Your task to perform on an android device: Add "razer kraken" to the cart on target Image 0: 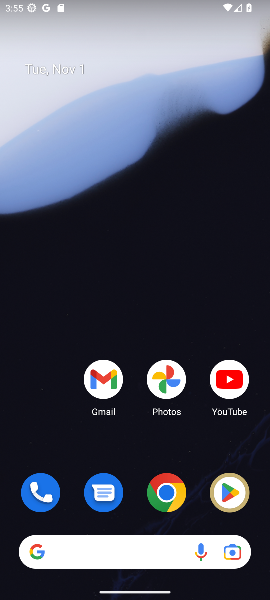
Step 0: click (168, 491)
Your task to perform on an android device: Add "razer kraken" to the cart on target Image 1: 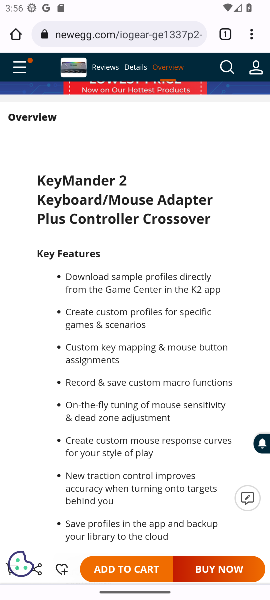
Step 1: click (87, 28)
Your task to perform on an android device: Add "razer kraken" to the cart on target Image 2: 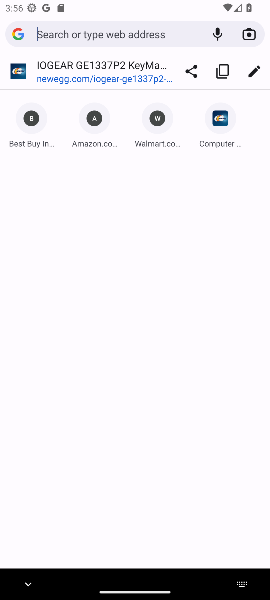
Step 2: type "target"
Your task to perform on an android device: Add "razer kraken" to the cart on target Image 3: 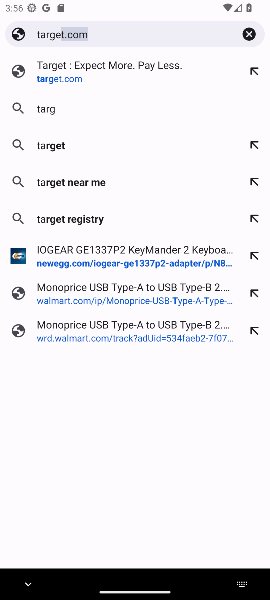
Step 3: type ""
Your task to perform on an android device: Add "razer kraken" to the cart on target Image 4: 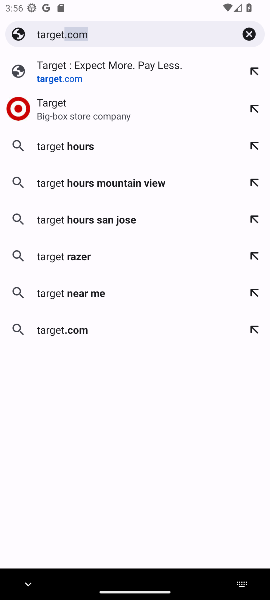
Step 4: click (121, 76)
Your task to perform on an android device: Add "razer kraken" to the cart on target Image 5: 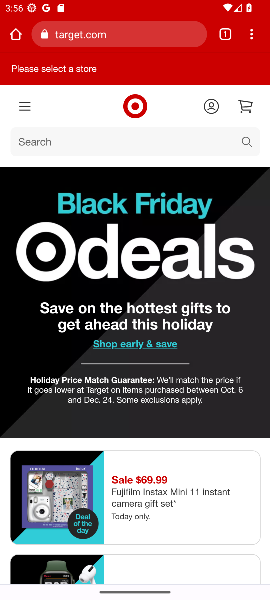
Step 5: click (194, 136)
Your task to perform on an android device: Add "razer kraken" to the cart on target Image 6: 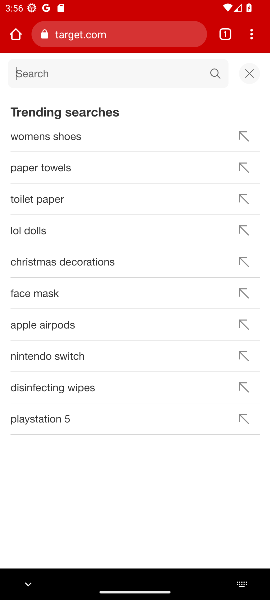
Step 6: type "razer kraken"
Your task to perform on an android device: Add "razer kraken" to the cart on target Image 7: 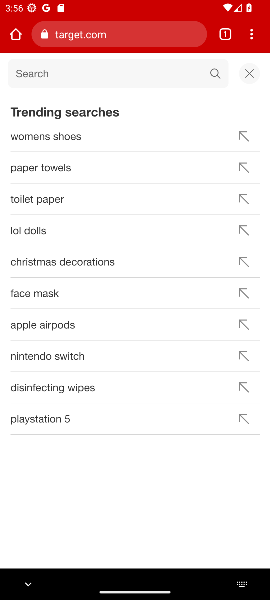
Step 7: type ""
Your task to perform on an android device: Add "razer kraken" to the cart on target Image 8: 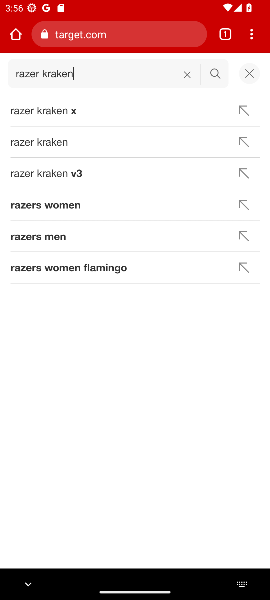
Step 8: click (36, 113)
Your task to perform on an android device: Add "razer kraken" to the cart on target Image 9: 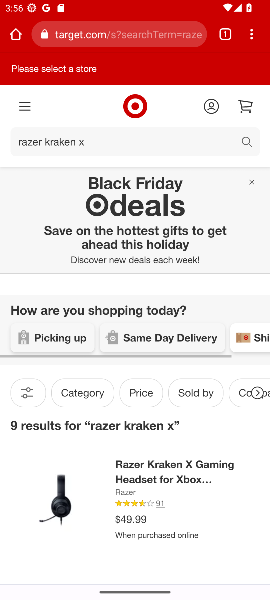
Step 9: click (173, 473)
Your task to perform on an android device: Add "razer kraken" to the cart on target Image 10: 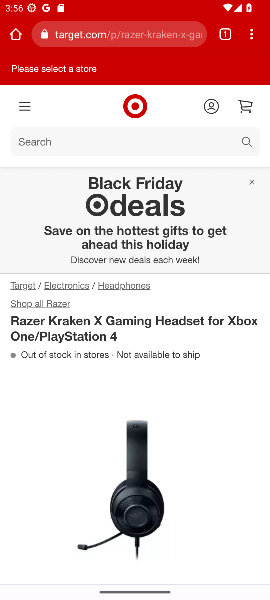
Step 10: drag from (169, 520) to (197, 167)
Your task to perform on an android device: Add "razer kraken" to the cart on target Image 11: 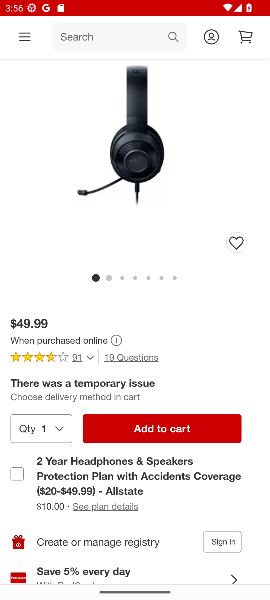
Step 11: click (161, 434)
Your task to perform on an android device: Add "razer kraken" to the cart on target Image 12: 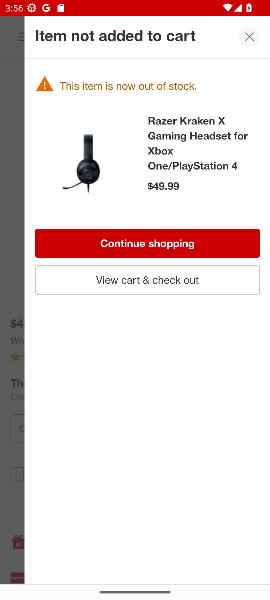
Step 12: click (196, 255)
Your task to perform on an android device: Add "razer kraken" to the cart on target Image 13: 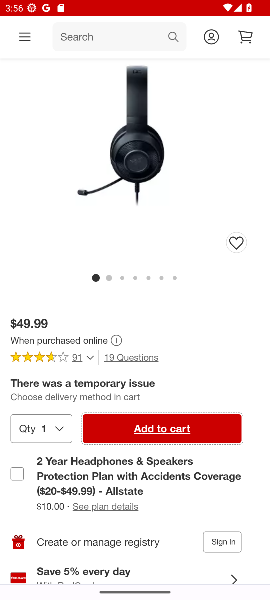
Step 13: drag from (188, 228) to (61, 212)
Your task to perform on an android device: Add "razer kraken" to the cart on target Image 14: 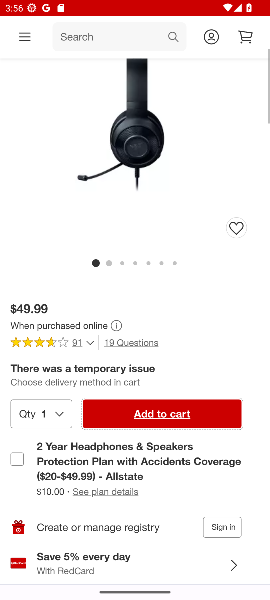
Step 14: drag from (146, 212) to (40, 206)
Your task to perform on an android device: Add "razer kraken" to the cart on target Image 15: 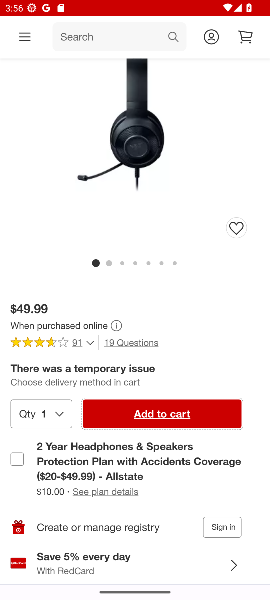
Step 15: drag from (152, 213) to (54, 210)
Your task to perform on an android device: Add "razer kraken" to the cart on target Image 16: 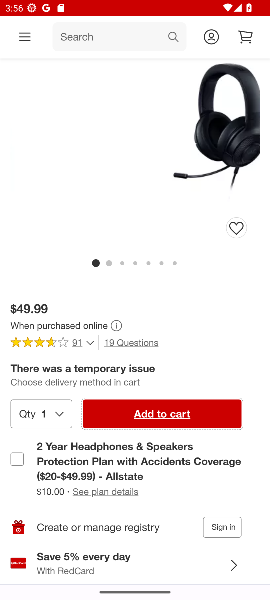
Step 16: click (97, 206)
Your task to perform on an android device: Add "razer kraken" to the cart on target Image 17: 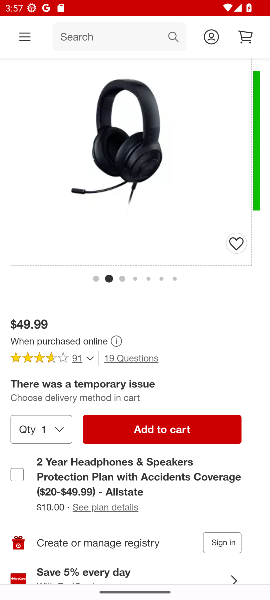
Step 17: click (79, 199)
Your task to perform on an android device: Add "razer kraken" to the cart on target Image 18: 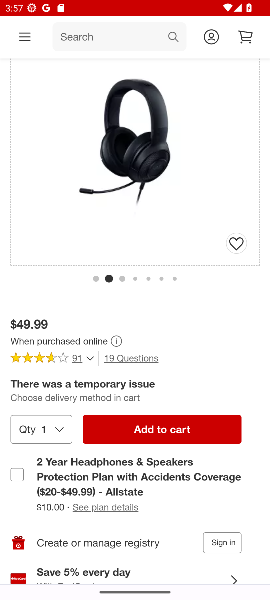
Step 18: click (58, 192)
Your task to perform on an android device: Add "razer kraken" to the cart on target Image 19: 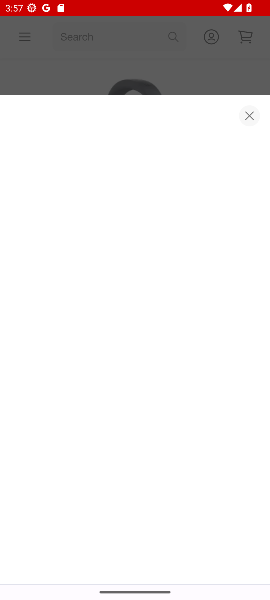
Step 19: drag from (128, 192) to (48, 188)
Your task to perform on an android device: Add "razer kraken" to the cart on target Image 20: 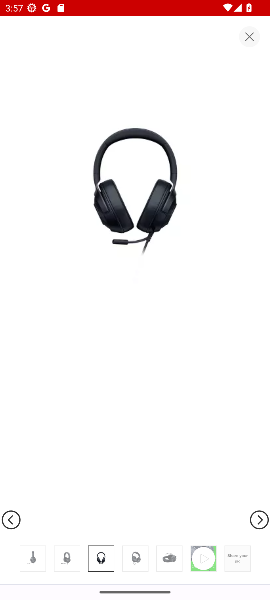
Step 20: click (237, 40)
Your task to perform on an android device: Add "razer kraken" to the cart on target Image 21: 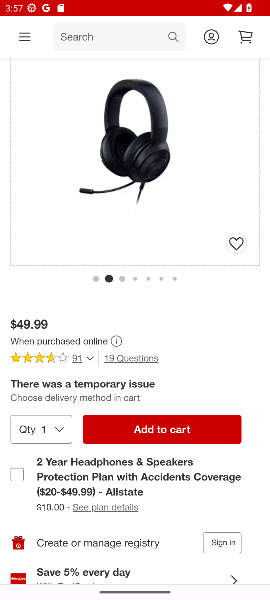
Step 21: drag from (209, 196) to (168, 194)
Your task to perform on an android device: Add "razer kraken" to the cart on target Image 22: 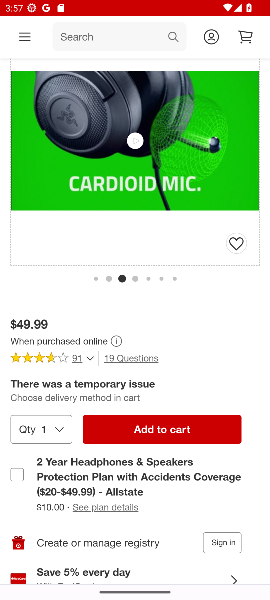
Step 22: drag from (191, 186) to (92, 188)
Your task to perform on an android device: Add "razer kraken" to the cart on target Image 23: 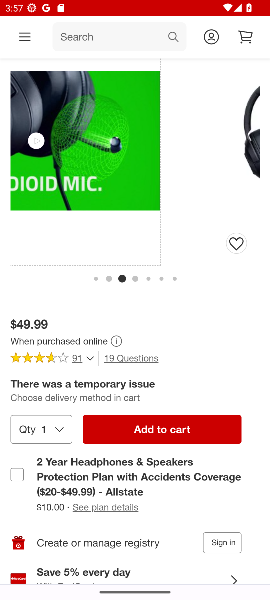
Step 23: drag from (182, 174) to (116, 174)
Your task to perform on an android device: Add "razer kraken" to the cart on target Image 24: 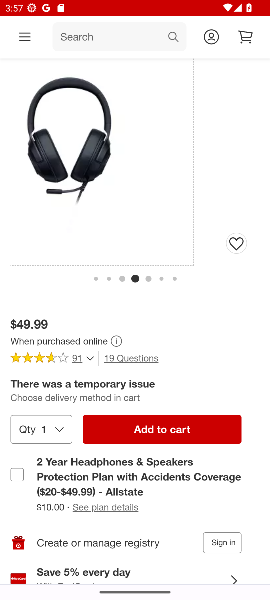
Step 24: drag from (193, 173) to (87, 173)
Your task to perform on an android device: Add "razer kraken" to the cart on target Image 25: 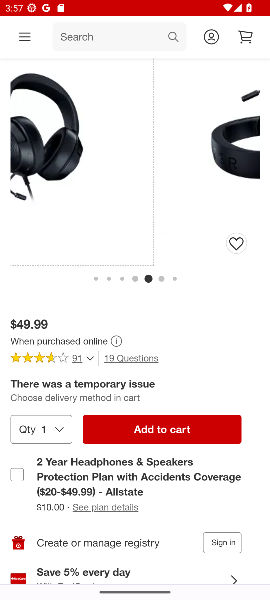
Step 25: drag from (163, 174) to (80, 169)
Your task to perform on an android device: Add "razer kraken" to the cart on target Image 26: 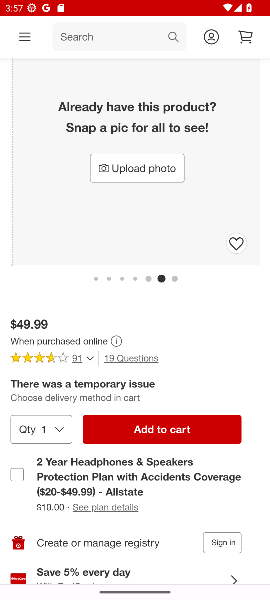
Step 26: drag from (96, 171) to (63, 177)
Your task to perform on an android device: Add "razer kraken" to the cart on target Image 27: 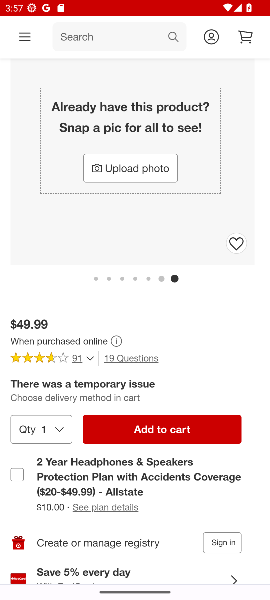
Step 27: drag from (124, 175) to (34, 173)
Your task to perform on an android device: Add "razer kraken" to the cart on target Image 28: 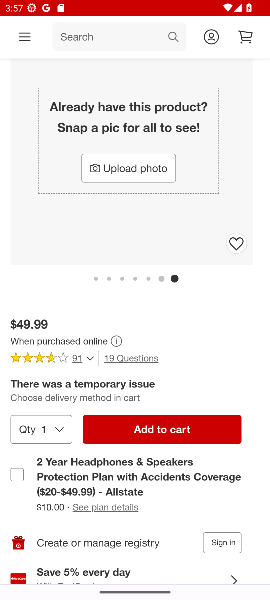
Step 28: drag from (91, 176) to (28, 175)
Your task to perform on an android device: Add "razer kraken" to the cart on target Image 29: 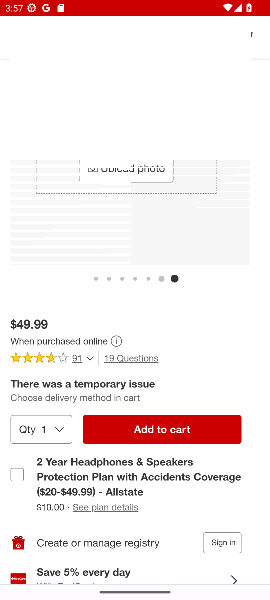
Step 29: drag from (128, 172) to (80, 166)
Your task to perform on an android device: Add "razer kraken" to the cart on target Image 30: 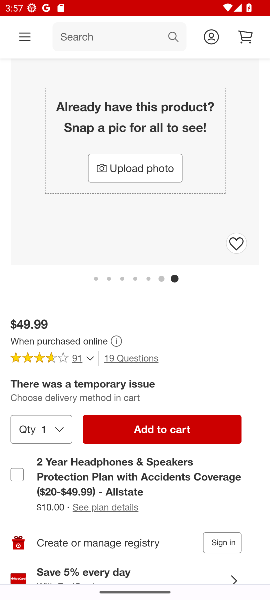
Step 30: drag from (188, 149) to (90, 151)
Your task to perform on an android device: Add "razer kraken" to the cart on target Image 31: 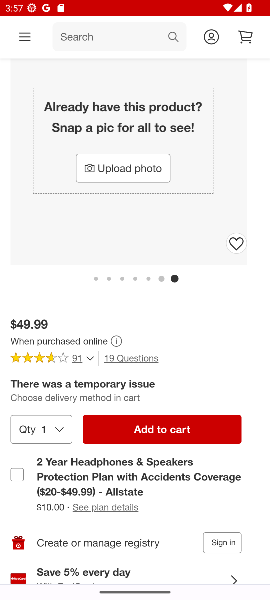
Step 31: drag from (74, 161) to (158, 161)
Your task to perform on an android device: Add "razer kraken" to the cart on target Image 32: 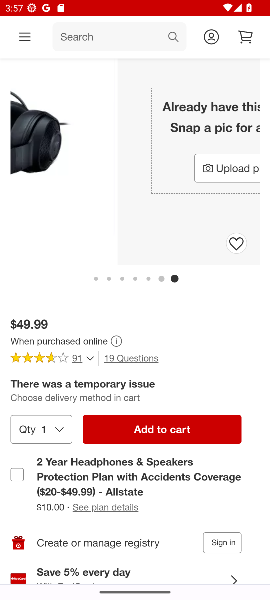
Step 32: drag from (128, 160) to (212, 159)
Your task to perform on an android device: Add "razer kraken" to the cart on target Image 33: 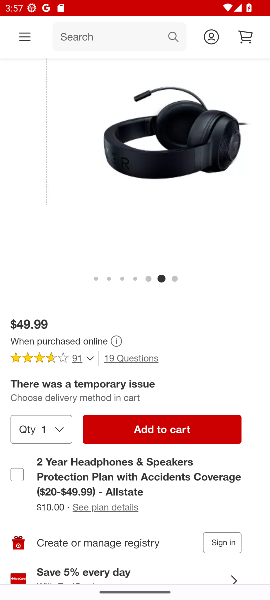
Step 33: drag from (110, 160) to (218, 160)
Your task to perform on an android device: Add "razer kraken" to the cart on target Image 34: 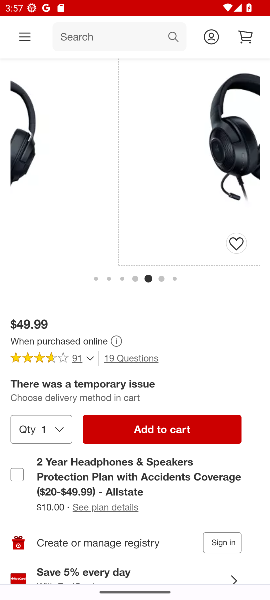
Step 34: drag from (80, 164) to (253, 166)
Your task to perform on an android device: Add "razer kraken" to the cart on target Image 35: 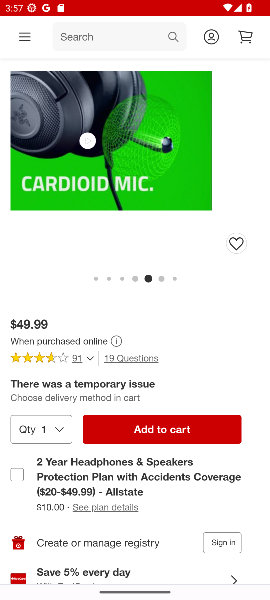
Step 35: drag from (160, 168) to (219, 168)
Your task to perform on an android device: Add "razer kraken" to the cart on target Image 36: 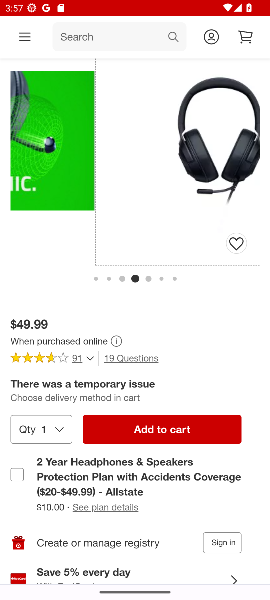
Step 36: drag from (138, 169) to (252, 166)
Your task to perform on an android device: Add "razer kraken" to the cart on target Image 37: 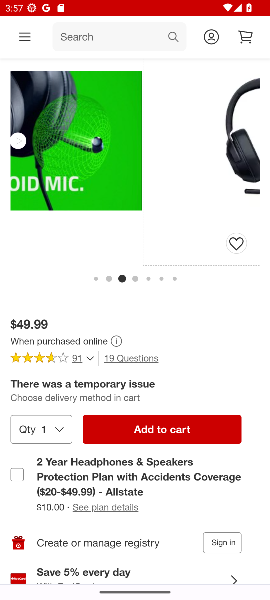
Step 37: drag from (121, 166) to (225, 162)
Your task to perform on an android device: Add "razer kraken" to the cart on target Image 38: 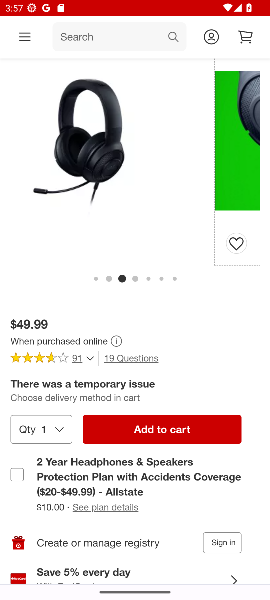
Step 38: drag from (104, 163) to (191, 164)
Your task to perform on an android device: Add "razer kraken" to the cart on target Image 39: 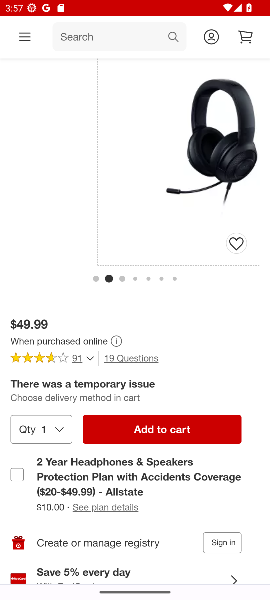
Step 39: drag from (83, 162) to (223, 153)
Your task to perform on an android device: Add "razer kraken" to the cart on target Image 40: 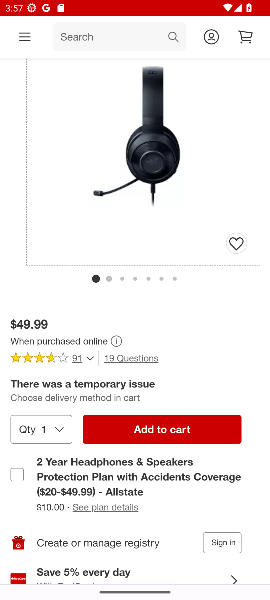
Step 40: drag from (113, 161) to (193, 163)
Your task to perform on an android device: Add "razer kraken" to the cart on target Image 41: 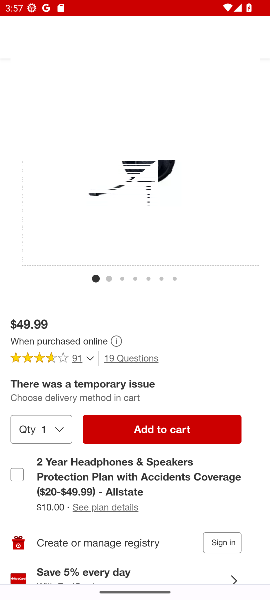
Step 41: drag from (77, 162) to (205, 158)
Your task to perform on an android device: Add "razer kraken" to the cart on target Image 42: 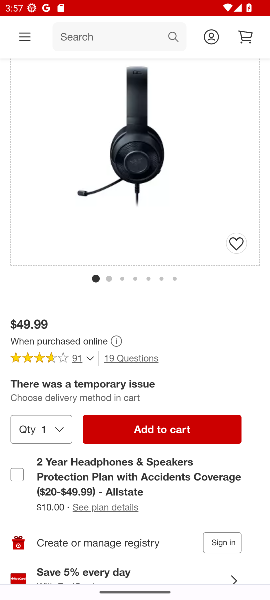
Step 42: click (183, 432)
Your task to perform on an android device: Add "razer kraken" to the cart on target Image 43: 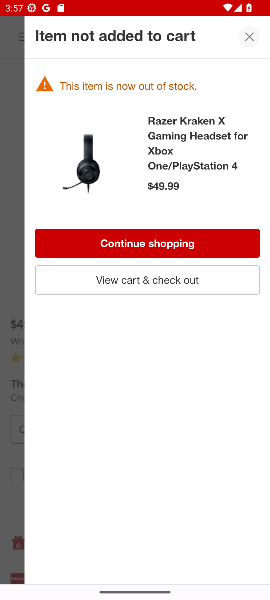
Step 43: click (155, 282)
Your task to perform on an android device: Add "razer kraken" to the cart on target Image 44: 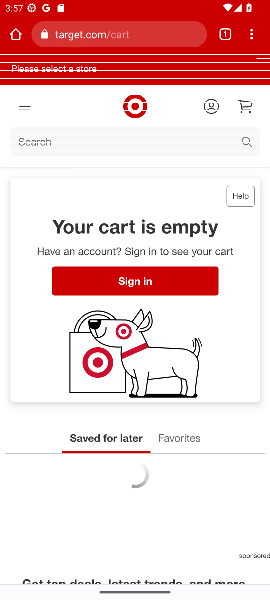
Step 44: drag from (158, 370) to (170, 242)
Your task to perform on an android device: Add "razer kraken" to the cart on target Image 45: 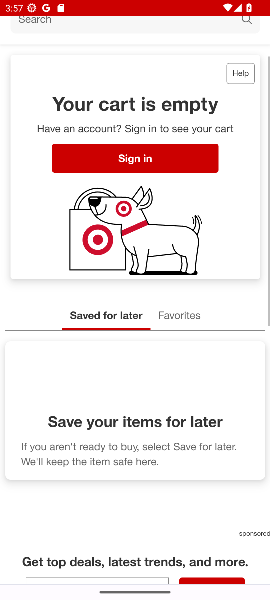
Step 45: drag from (163, 347) to (170, 229)
Your task to perform on an android device: Add "razer kraken" to the cart on target Image 46: 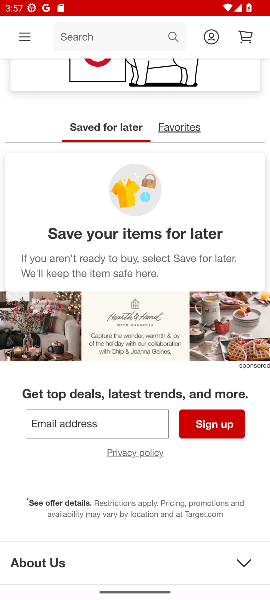
Step 46: click (248, 73)
Your task to perform on an android device: Add "razer kraken" to the cart on target Image 47: 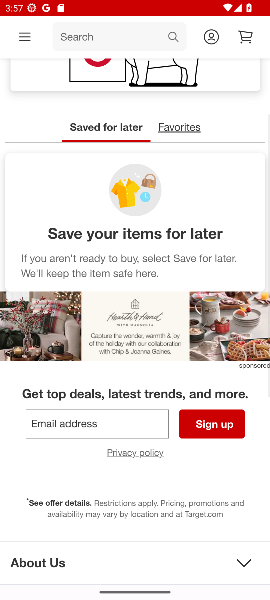
Step 47: task complete